Your task to perform on an android device: turn off wifi Image 0: 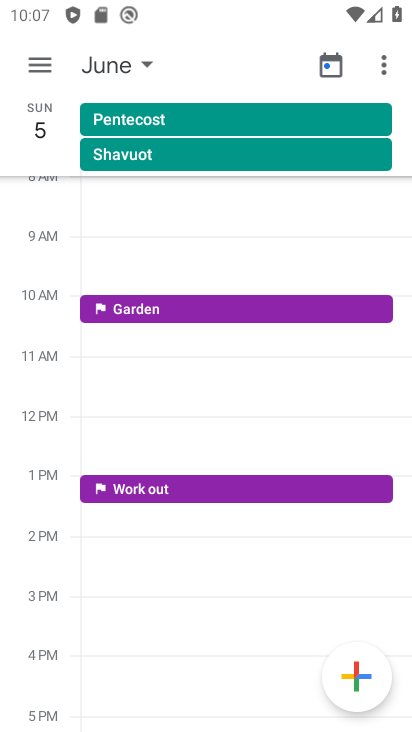
Step 0: press home button
Your task to perform on an android device: turn off wifi Image 1: 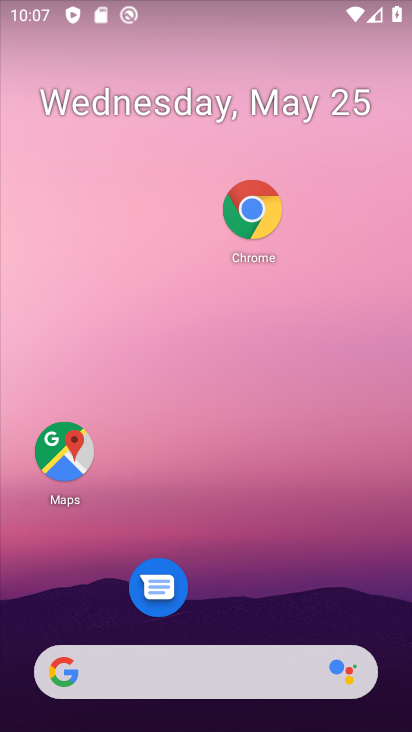
Step 1: drag from (252, 374) to (252, 16)
Your task to perform on an android device: turn off wifi Image 2: 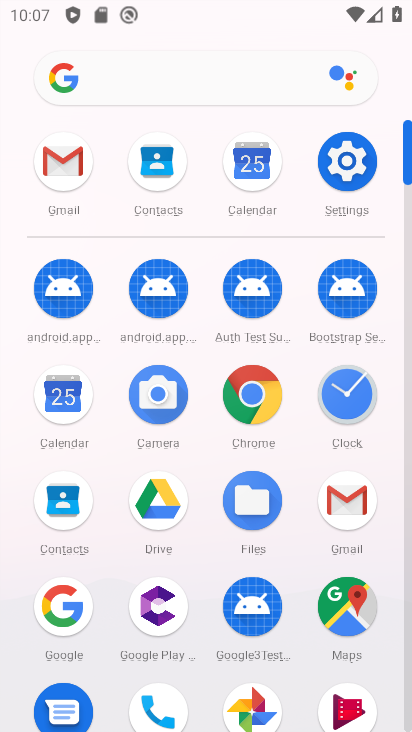
Step 2: drag from (245, 333) to (246, 3)
Your task to perform on an android device: turn off wifi Image 3: 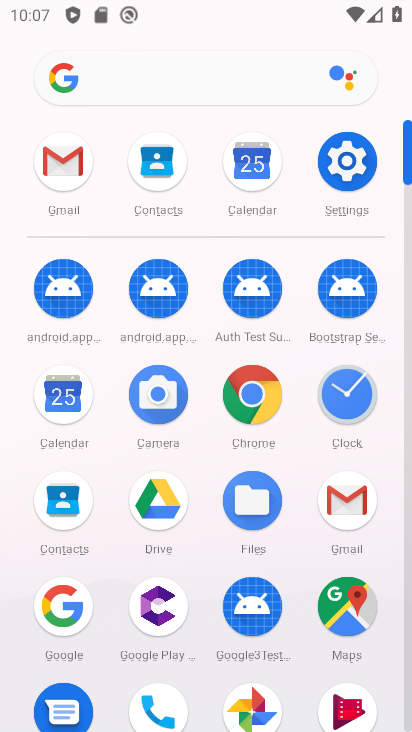
Step 3: drag from (247, 631) to (317, 6)
Your task to perform on an android device: turn off wifi Image 4: 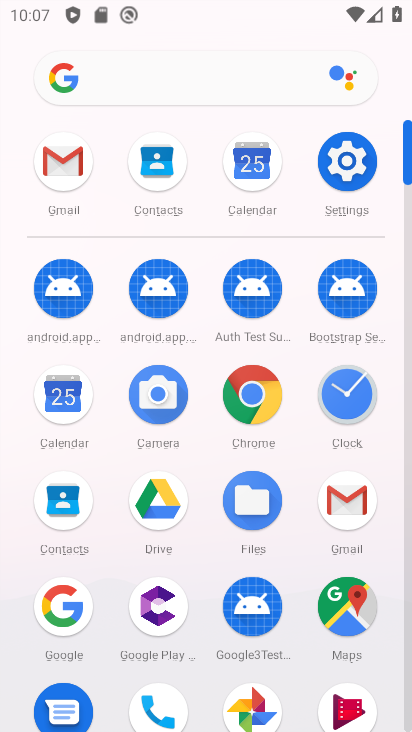
Step 4: click (348, 155)
Your task to perform on an android device: turn off wifi Image 5: 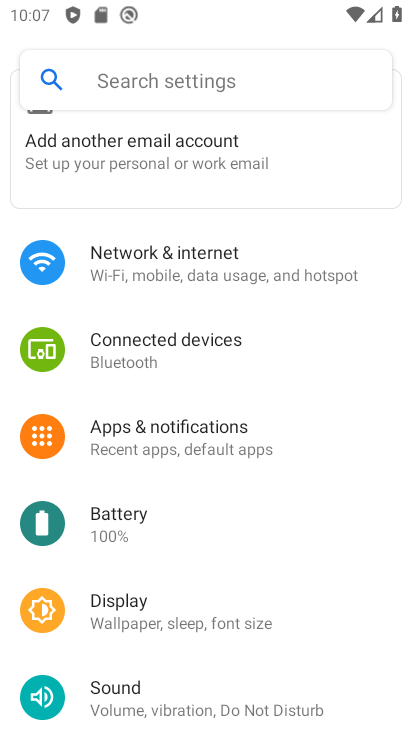
Step 5: drag from (293, 196) to (256, 516)
Your task to perform on an android device: turn off wifi Image 6: 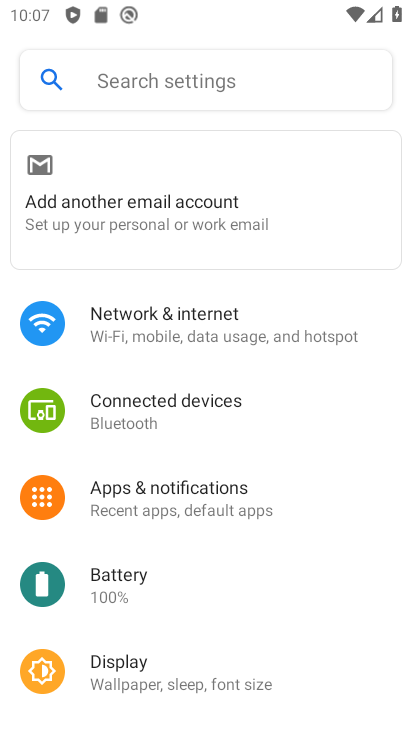
Step 6: click (186, 333)
Your task to perform on an android device: turn off wifi Image 7: 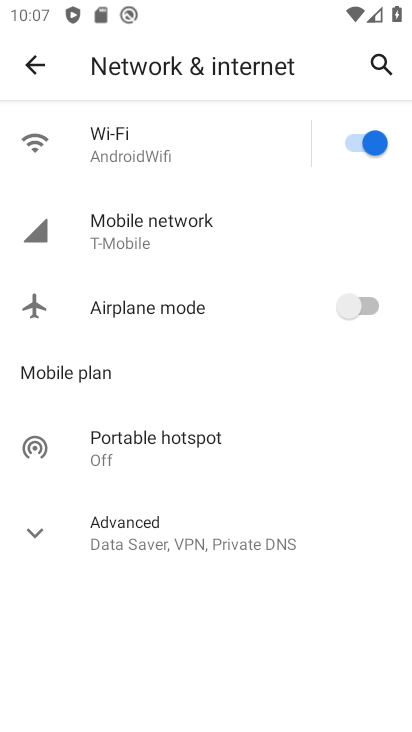
Step 7: click (343, 141)
Your task to perform on an android device: turn off wifi Image 8: 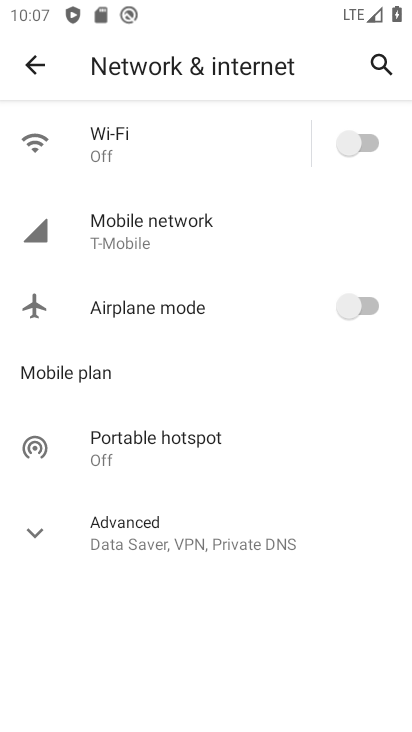
Step 8: task complete